Your task to perform on an android device: Go to display settings Image 0: 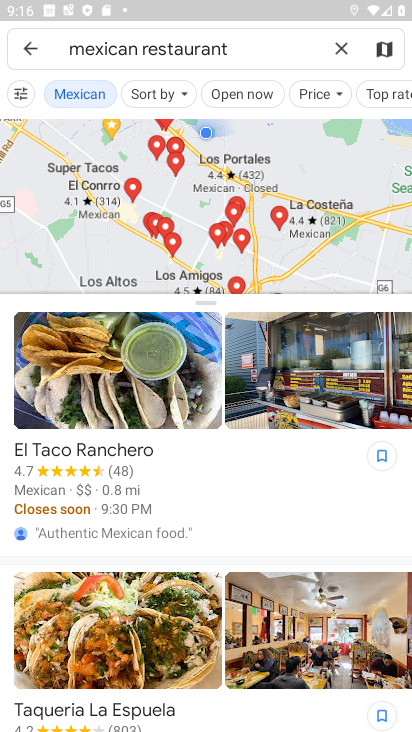
Step 0: press home button
Your task to perform on an android device: Go to display settings Image 1: 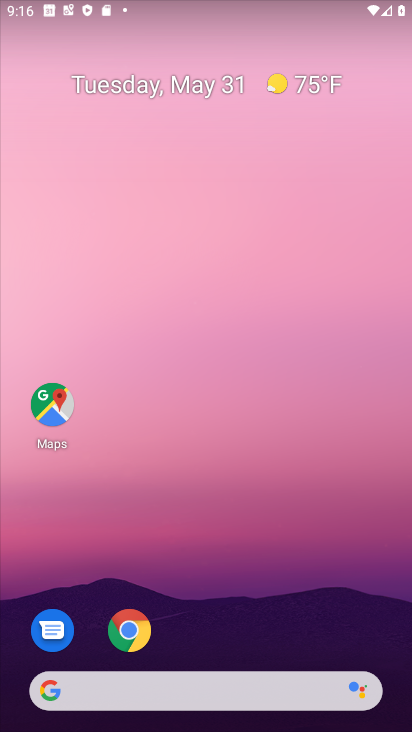
Step 1: drag from (238, 525) to (277, 23)
Your task to perform on an android device: Go to display settings Image 2: 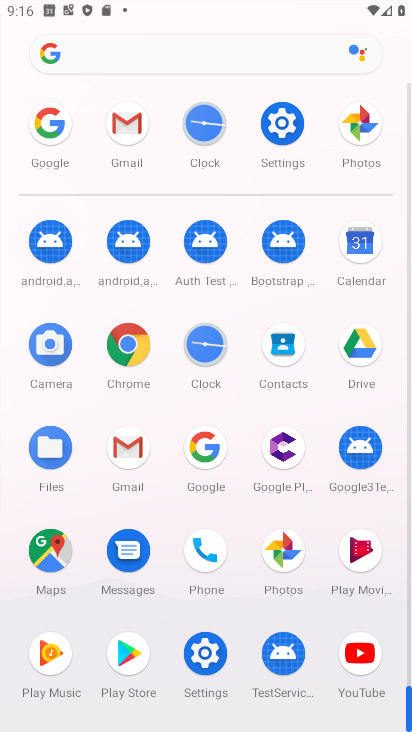
Step 2: click (282, 160)
Your task to perform on an android device: Go to display settings Image 3: 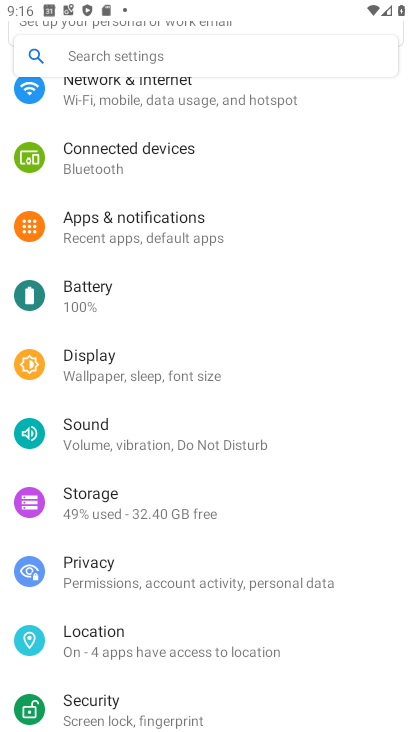
Step 3: click (116, 356)
Your task to perform on an android device: Go to display settings Image 4: 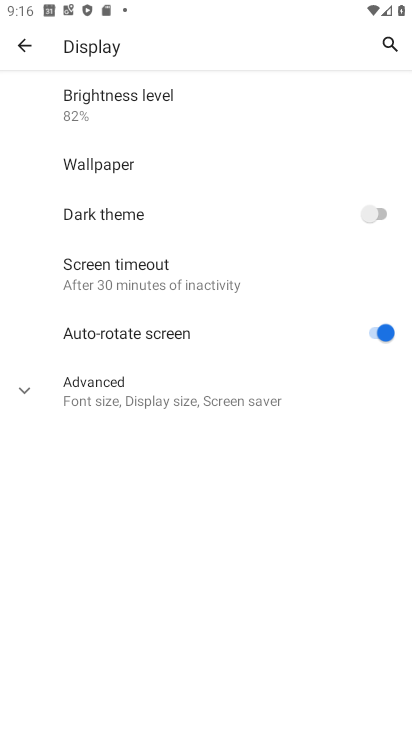
Step 4: task complete